Your task to perform on an android device: Go to CNN.com Image 0: 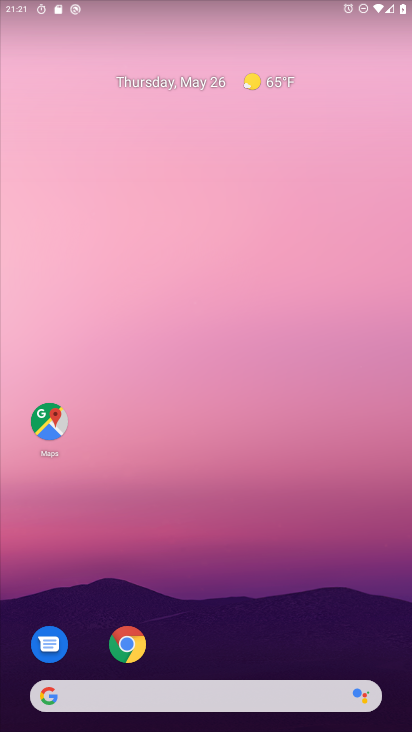
Step 0: drag from (197, 619) to (208, 63)
Your task to perform on an android device: Go to CNN.com Image 1: 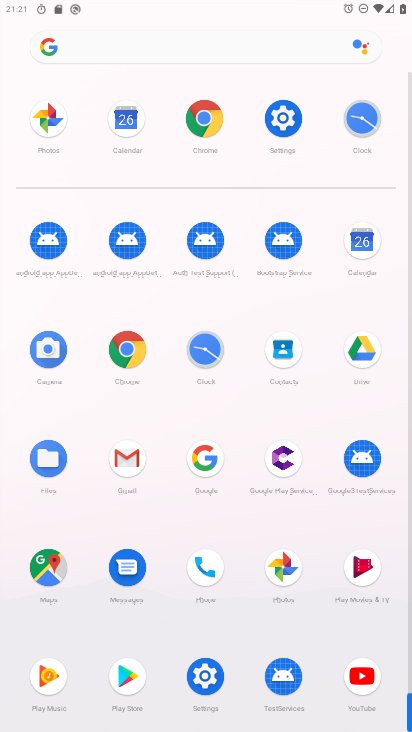
Step 1: click (207, 110)
Your task to perform on an android device: Go to CNN.com Image 2: 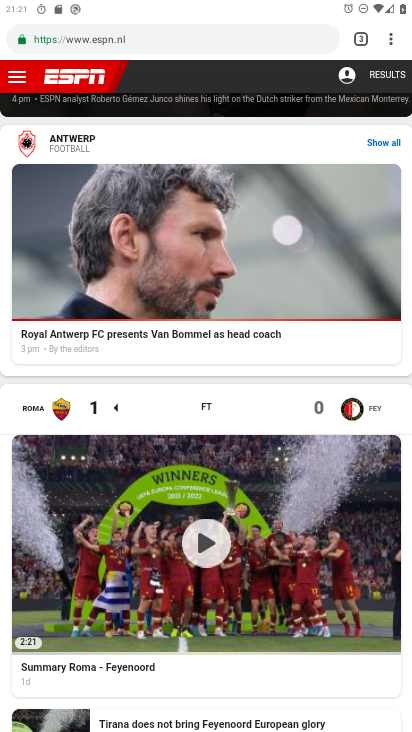
Step 2: drag from (223, 136) to (292, 717)
Your task to perform on an android device: Go to CNN.com Image 3: 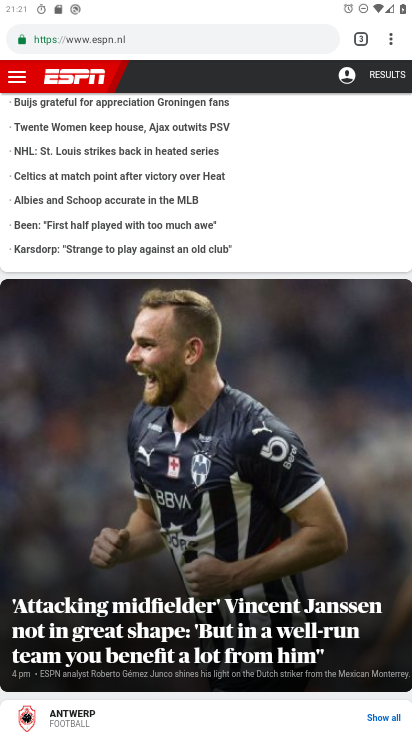
Step 3: click (126, 40)
Your task to perform on an android device: Go to CNN.com Image 4: 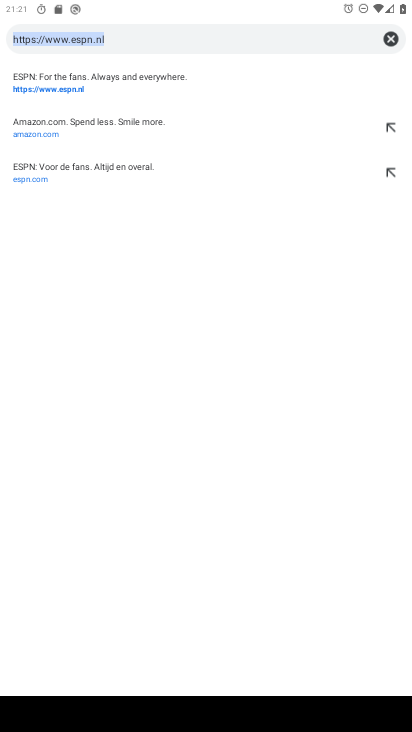
Step 4: click (388, 40)
Your task to perform on an android device: Go to CNN.com Image 5: 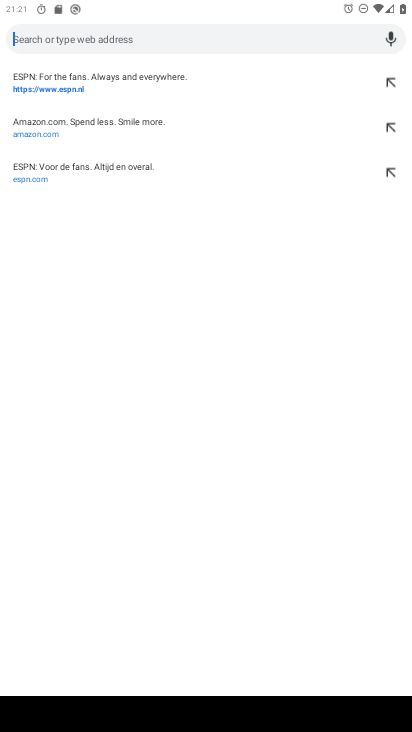
Step 5: click (101, 35)
Your task to perform on an android device: Go to CNN.com Image 6: 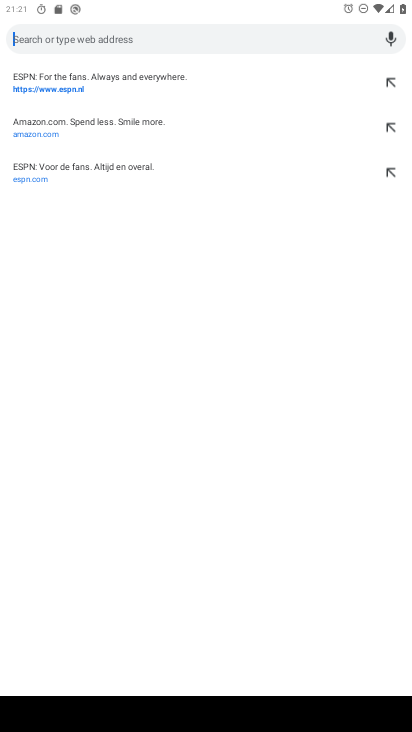
Step 6: click (91, 36)
Your task to perform on an android device: Go to CNN.com Image 7: 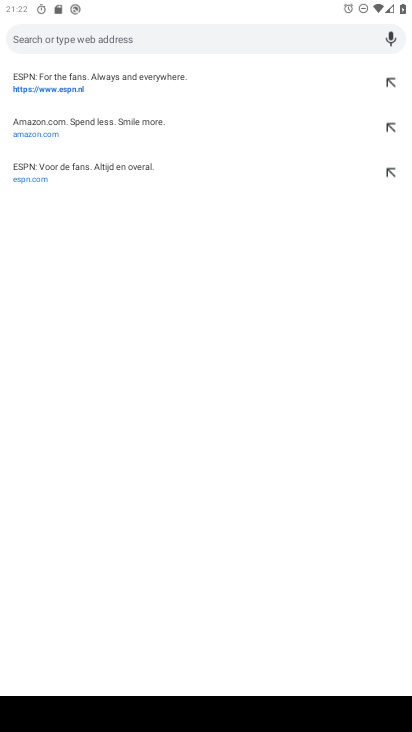
Step 7: type "CNN.com"
Your task to perform on an android device: Go to CNN.com Image 8: 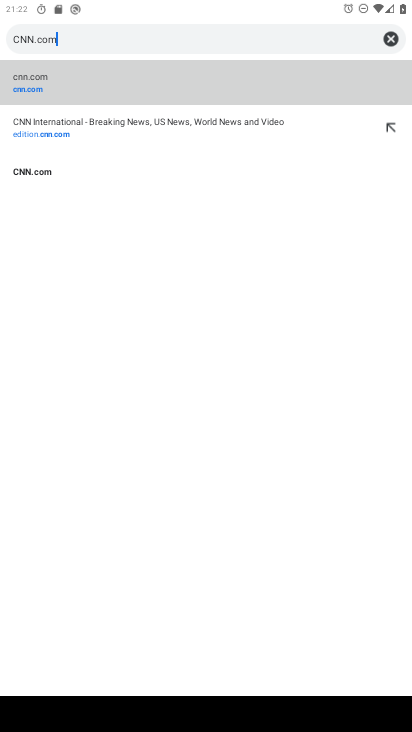
Step 8: type ""
Your task to perform on an android device: Go to CNN.com Image 9: 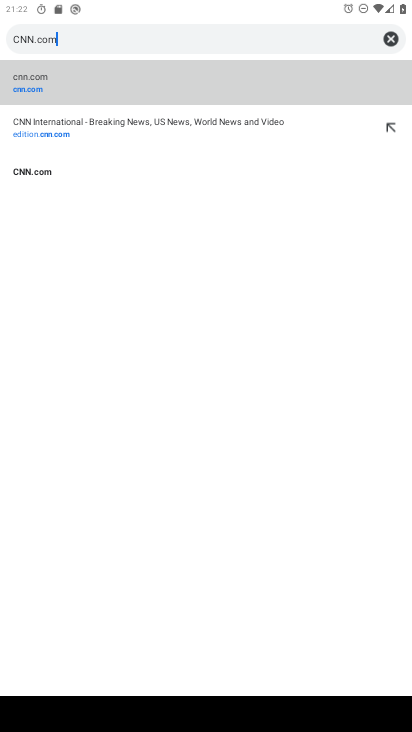
Step 9: drag from (135, 416) to (138, 254)
Your task to perform on an android device: Go to CNN.com Image 10: 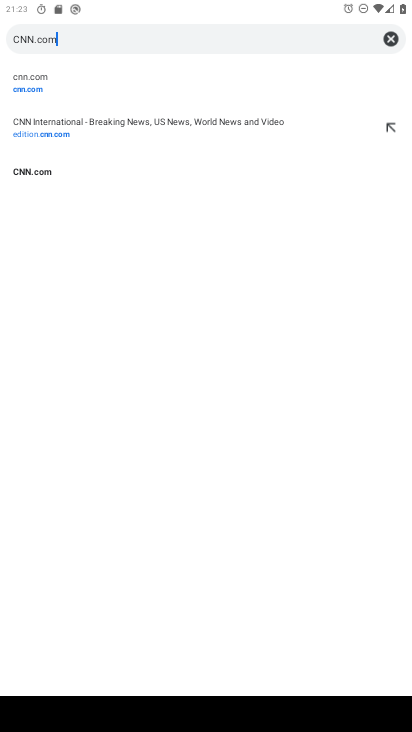
Step 10: drag from (131, 549) to (169, 310)
Your task to perform on an android device: Go to CNN.com Image 11: 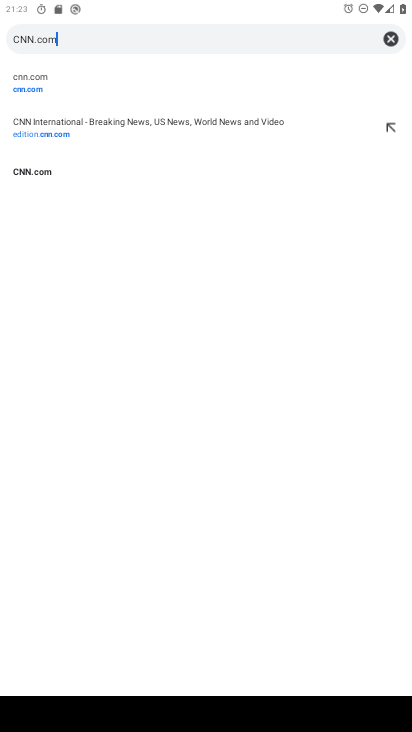
Step 11: drag from (185, 170) to (225, 610)
Your task to perform on an android device: Go to CNN.com Image 12: 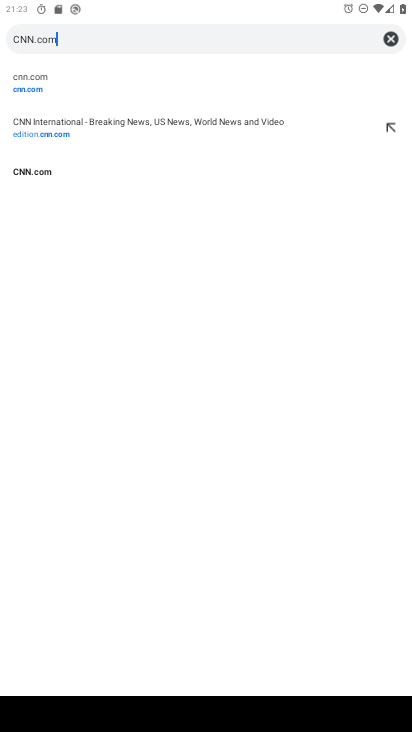
Step 12: click (62, 81)
Your task to perform on an android device: Go to CNN.com Image 13: 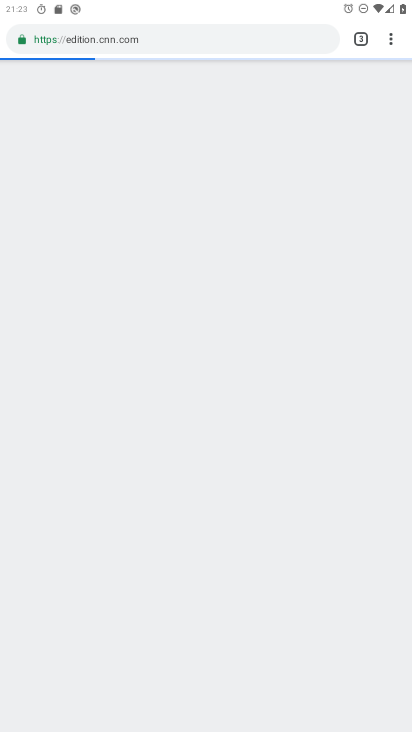
Step 13: task complete